Your task to perform on an android device: change the clock style Image 0: 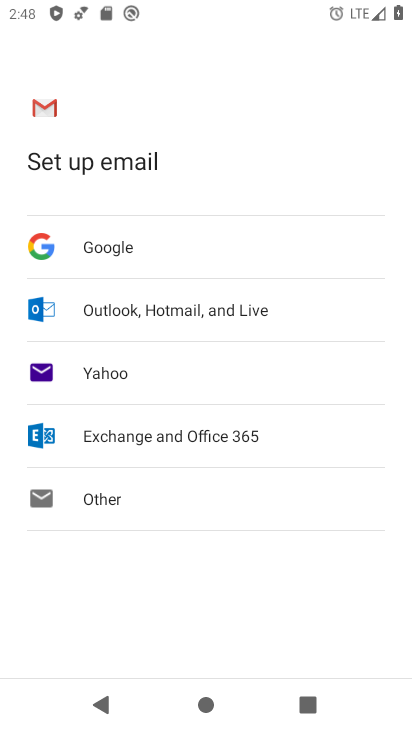
Step 0: press home button
Your task to perform on an android device: change the clock style Image 1: 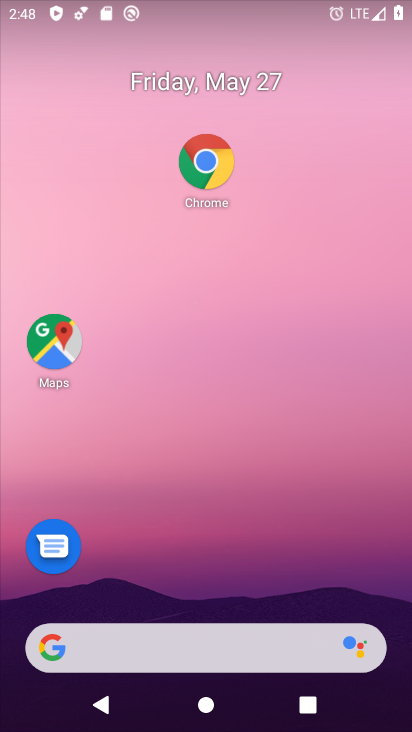
Step 1: drag from (129, 418) to (210, 104)
Your task to perform on an android device: change the clock style Image 2: 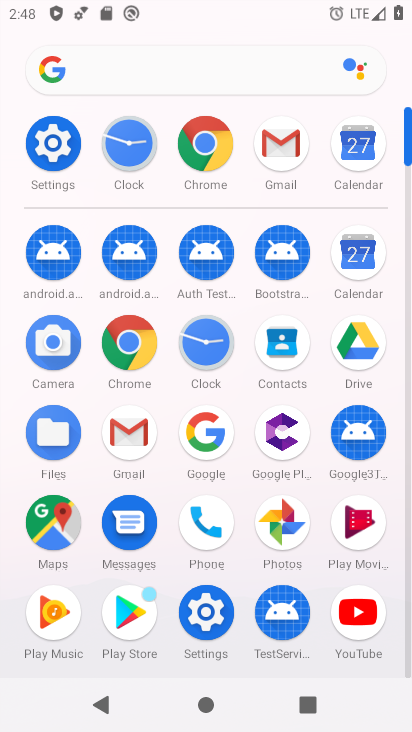
Step 2: click (181, 348)
Your task to perform on an android device: change the clock style Image 3: 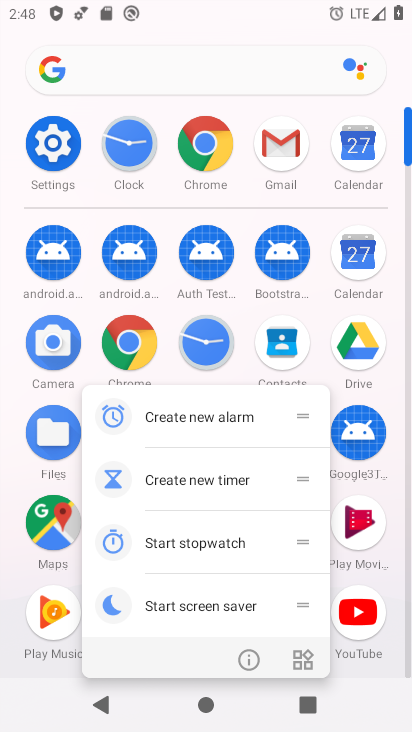
Step 3: click (195, 340)
Your task to perform on an android device: change the clock style Image 4: 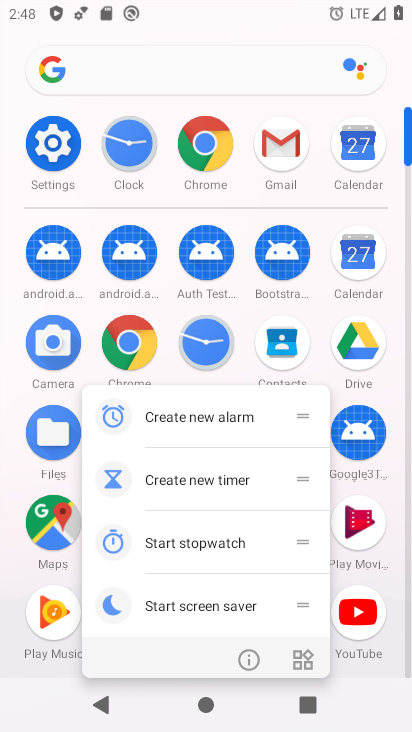
Step 4: click (212, 334)
Your task to perform on an android device: change the clock style Image 5: 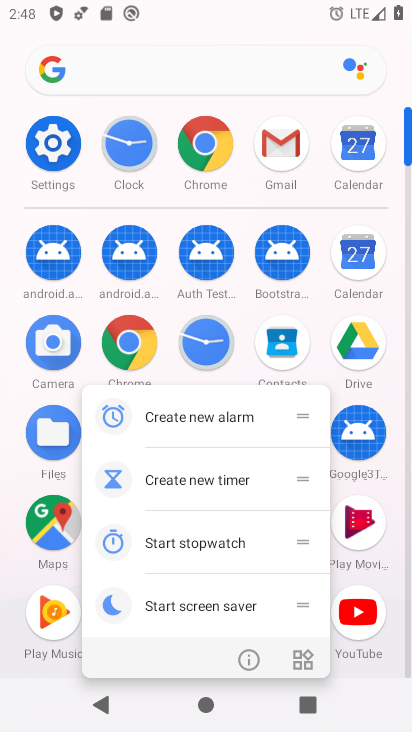
Step 5: click (194, 353)
Your task to perform on an android device: change the clock style Image 6: 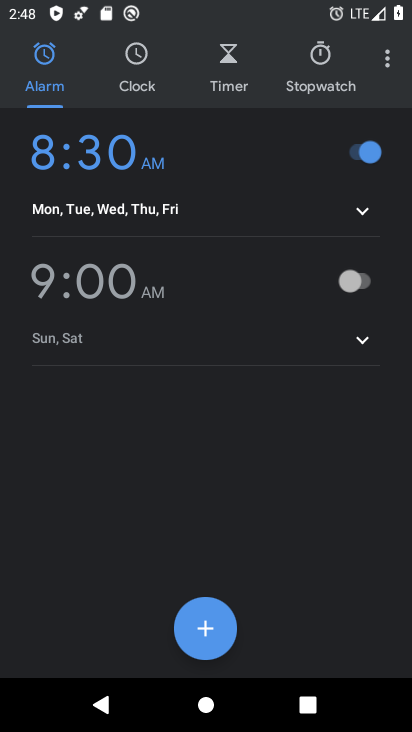
Step 6: click (392, 58)
Your task to perform on an android device: change the clock style Image 7: 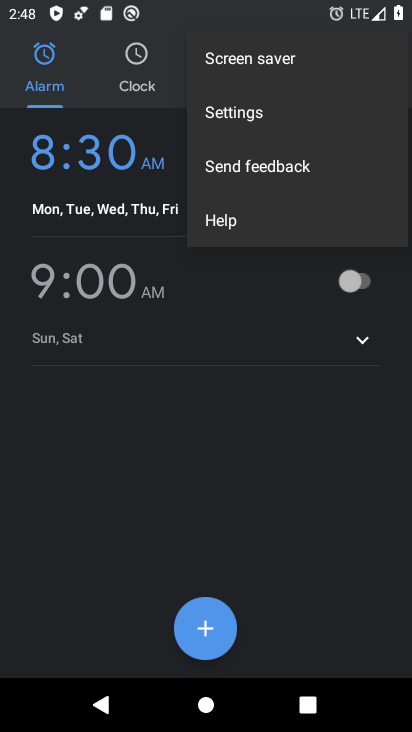
Step 7: click (293, 114)
Your task to perform on an android device: change the clock style Image 8: 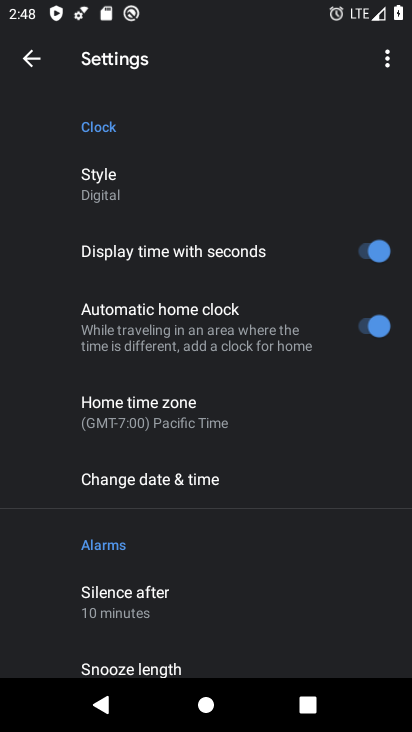
Step 8: click (90, 183)
Your task to perform on an android device: change the clock style Image 9: 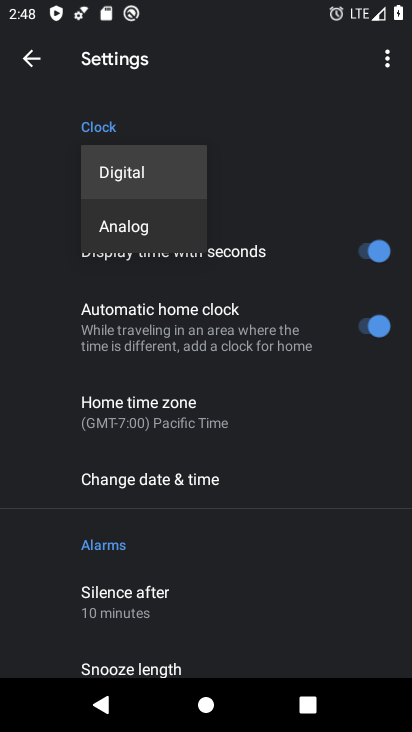
Step 9: click (149, 234)
Your task to perform on an android device: change the clock style Image 10: 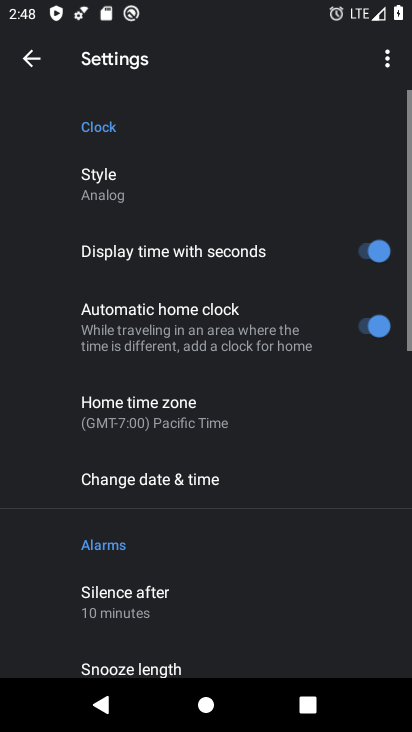
Step 10: task complete